Your task to perform on an android device: change alarm snooze length Image 0: 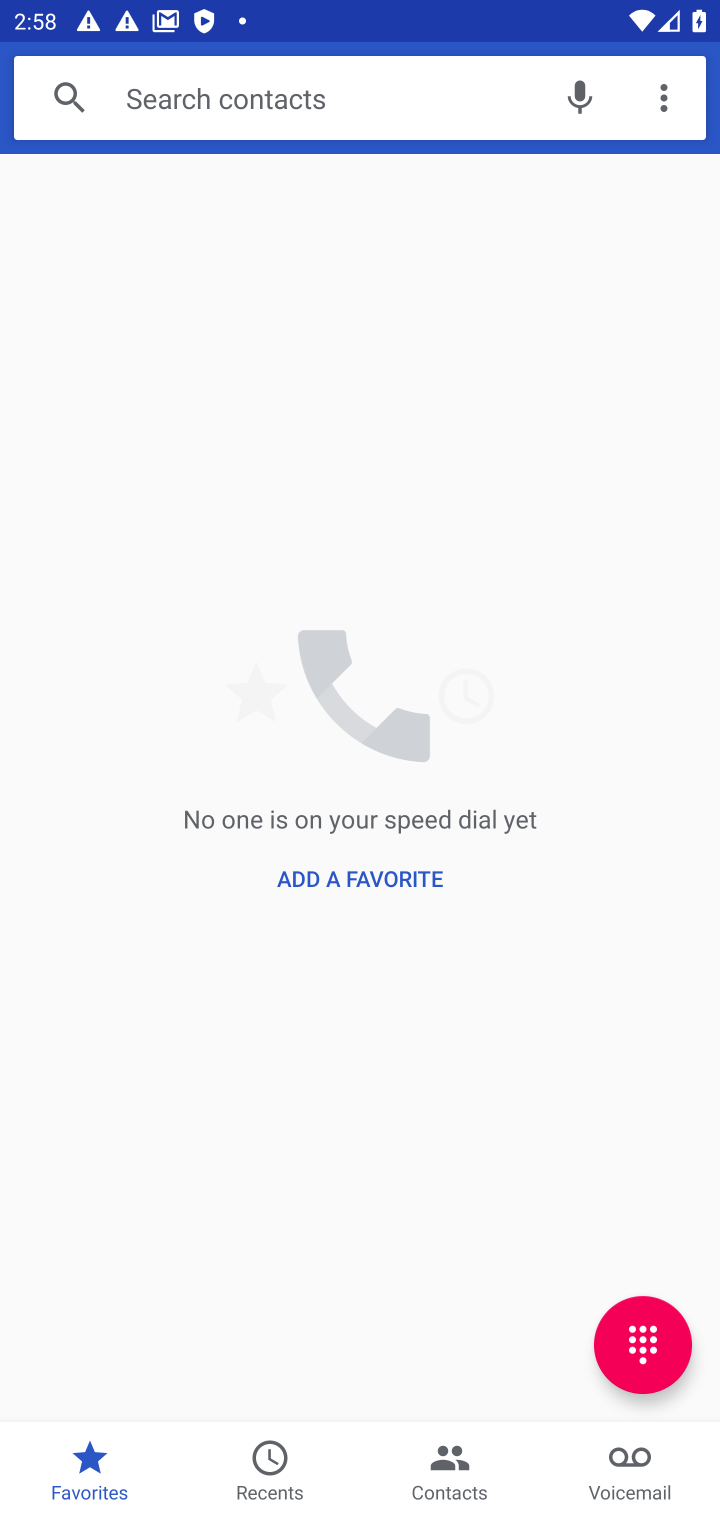
Step 0: press back button
Your task to perform on an android device: change alarm snooze length Image 1: 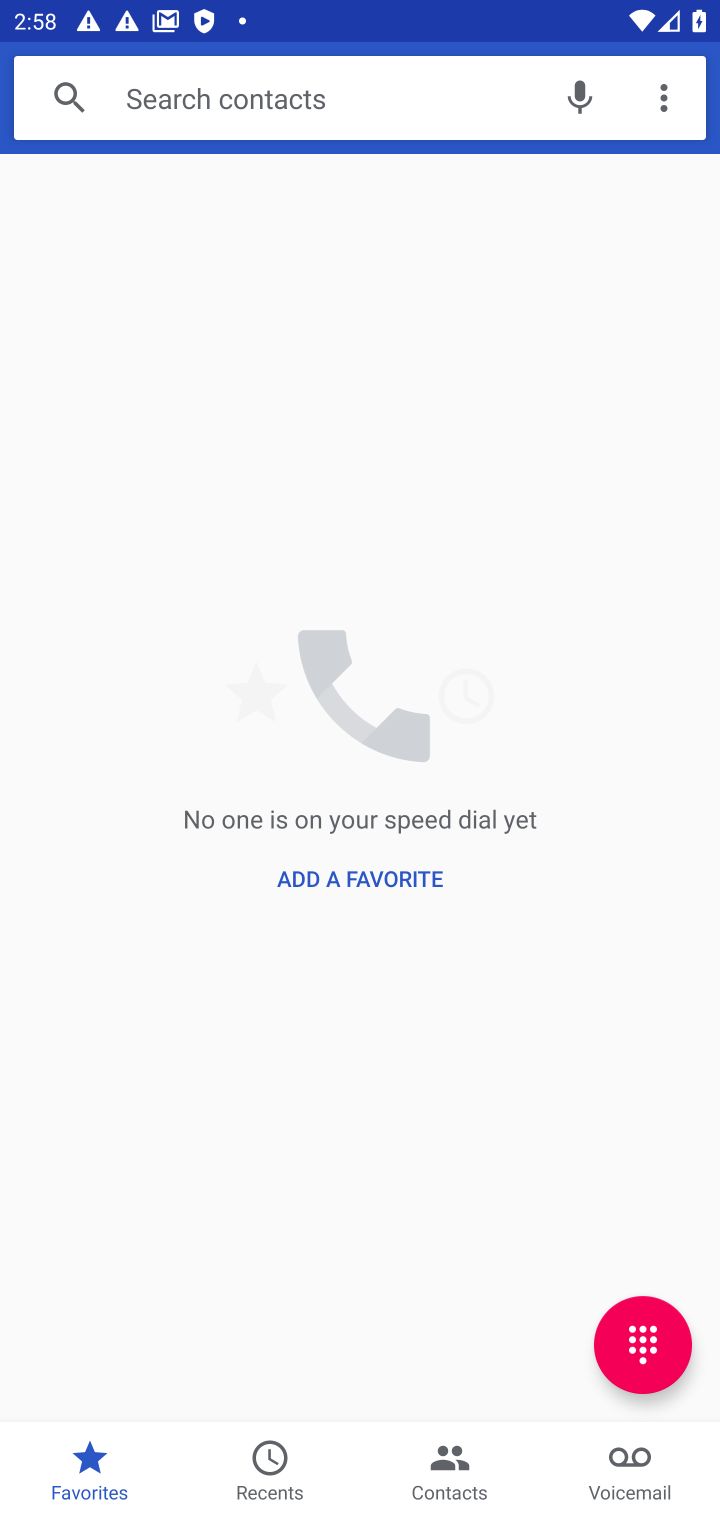
Step 1: press back button
Your task to perform on an android device: change alarm snooze length Image 2: 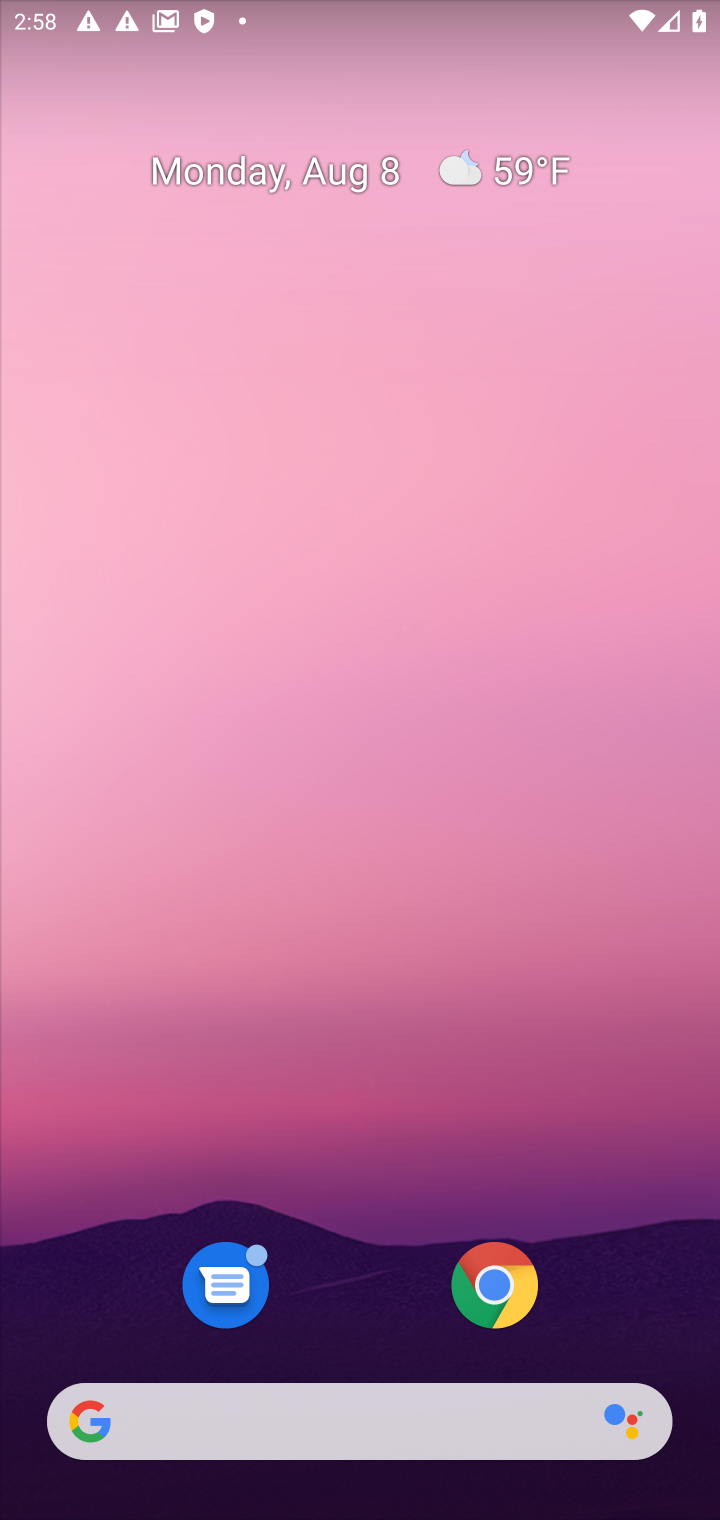
Step 2: click (503, 1274)
Your task to perform on an android device: change alarm snooze length Image 3: 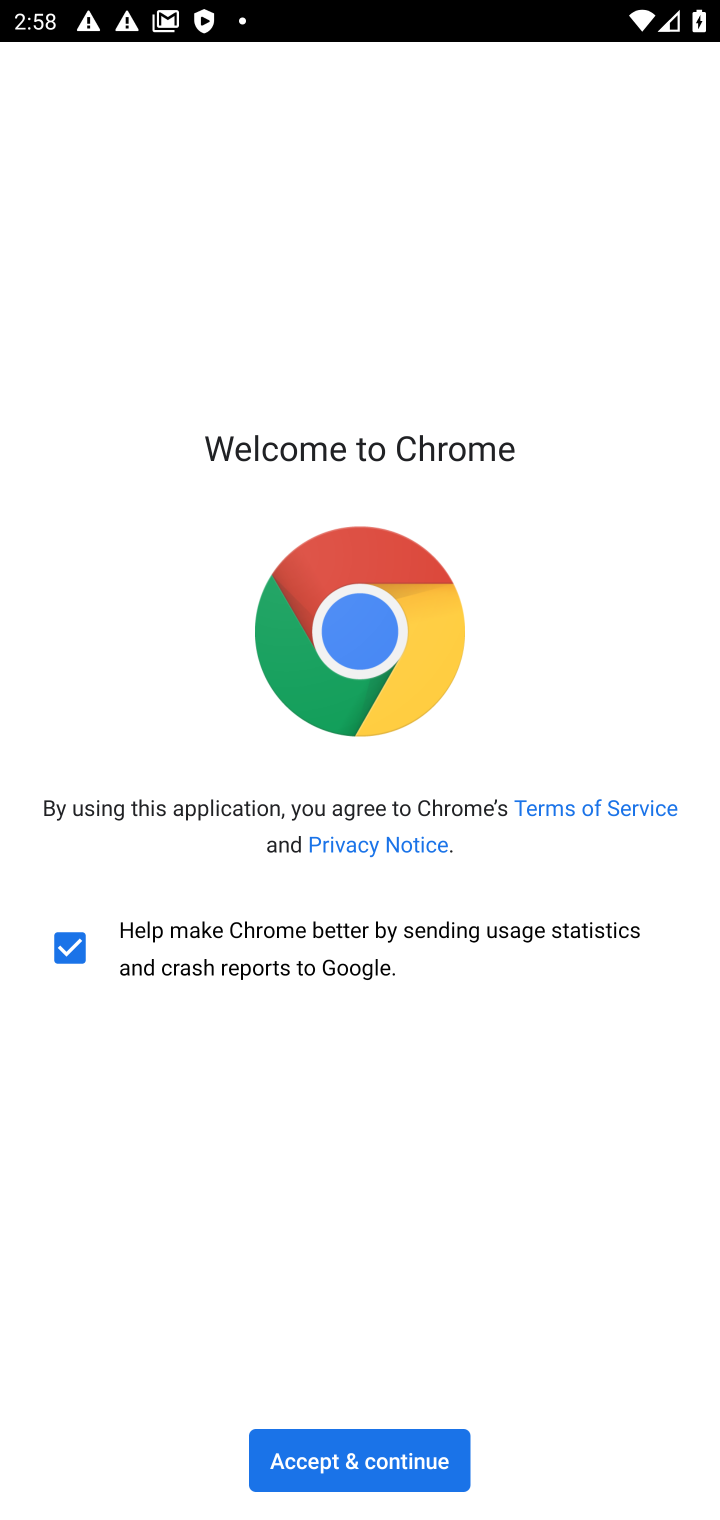
Step 3: press back button
Your task to perform on an android device: change alarm snooze length Image 4: 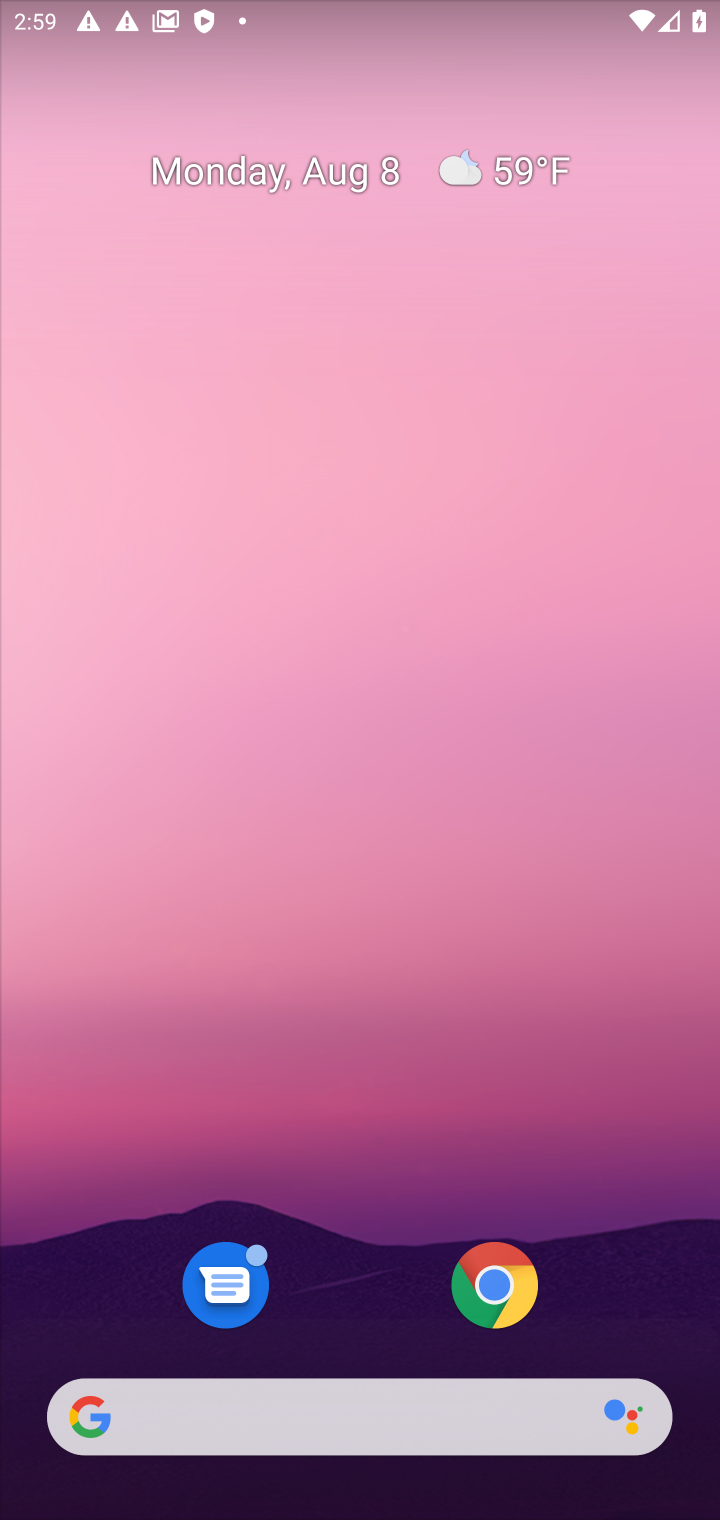
Step 4: drag from (338, 1257) to (463, 243)
Your task to perform on an android device: change alarm snooze length Image 5: 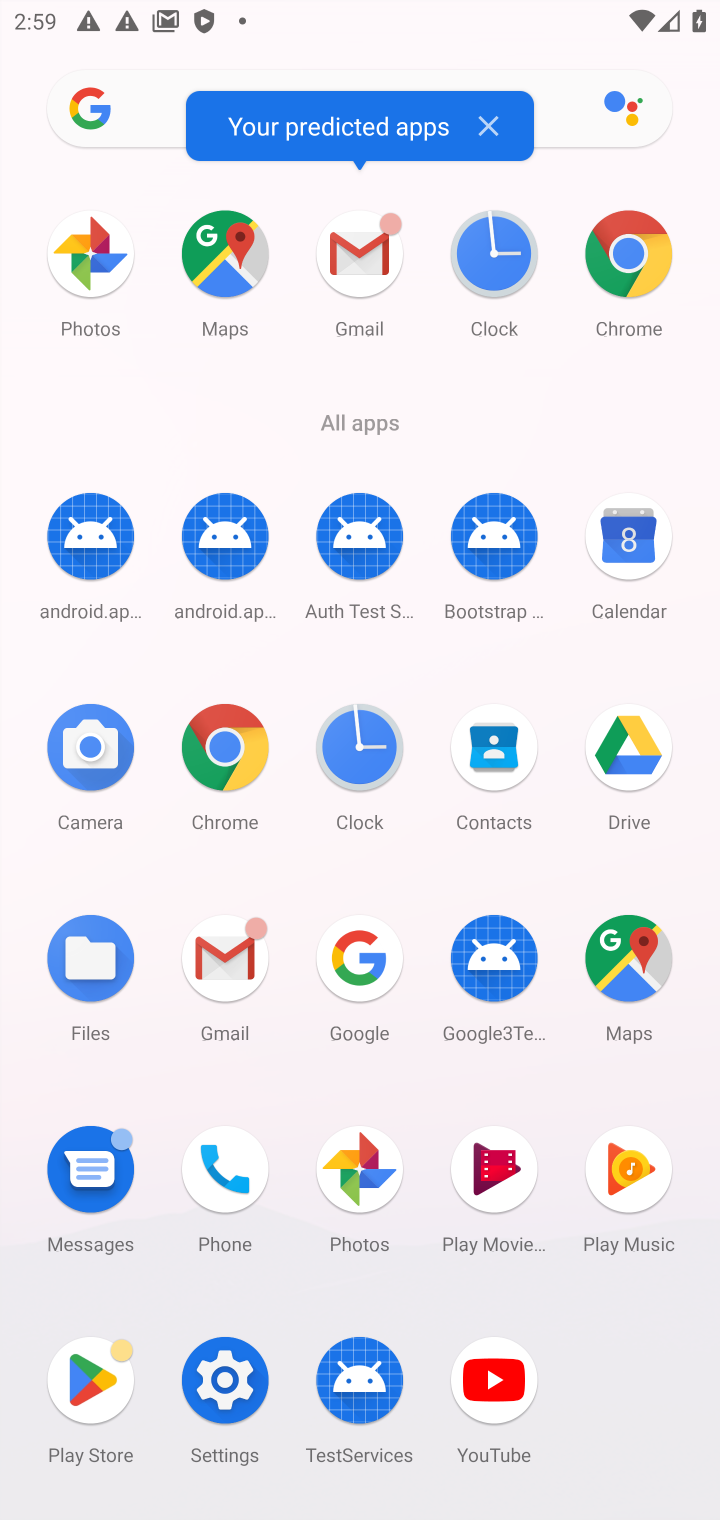
Step 5: click (524, 245)
Your task to perform on an android device: change alarm snooze length Image 6: 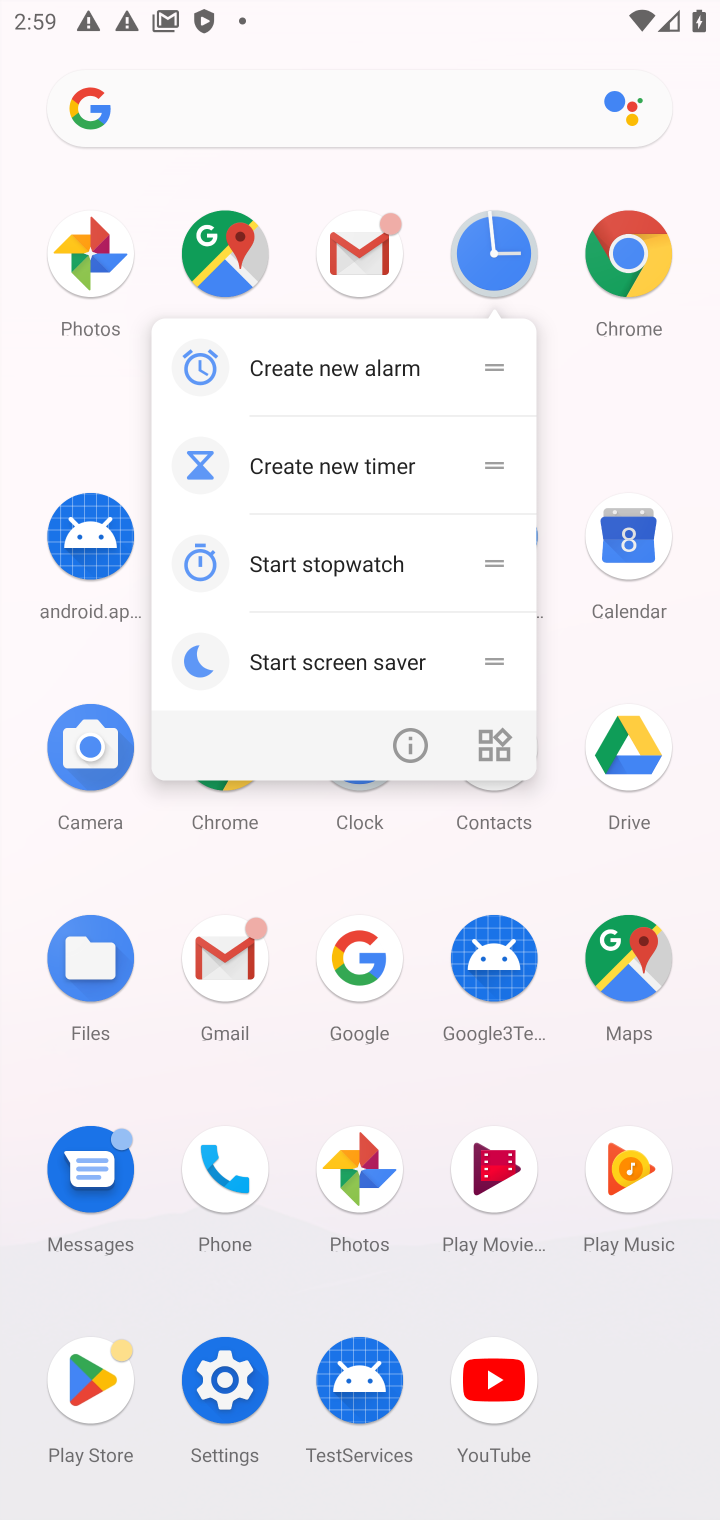
Step 6: click (483, 218)
Your task to perform on an android device: change alarm snooze length Image 7: 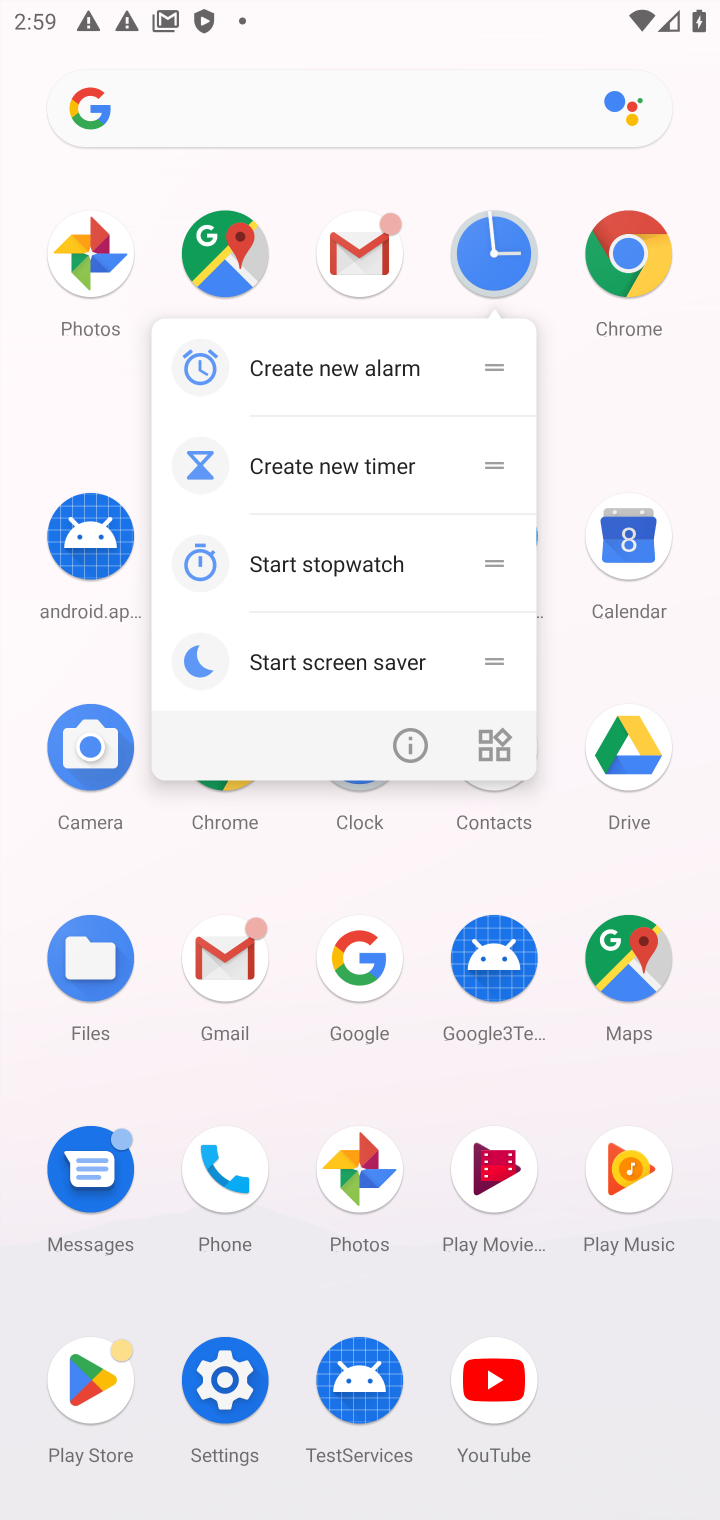
Step 7: click (492, 266)
Your task to perform on an android device: change alarm snooze length Image 8: 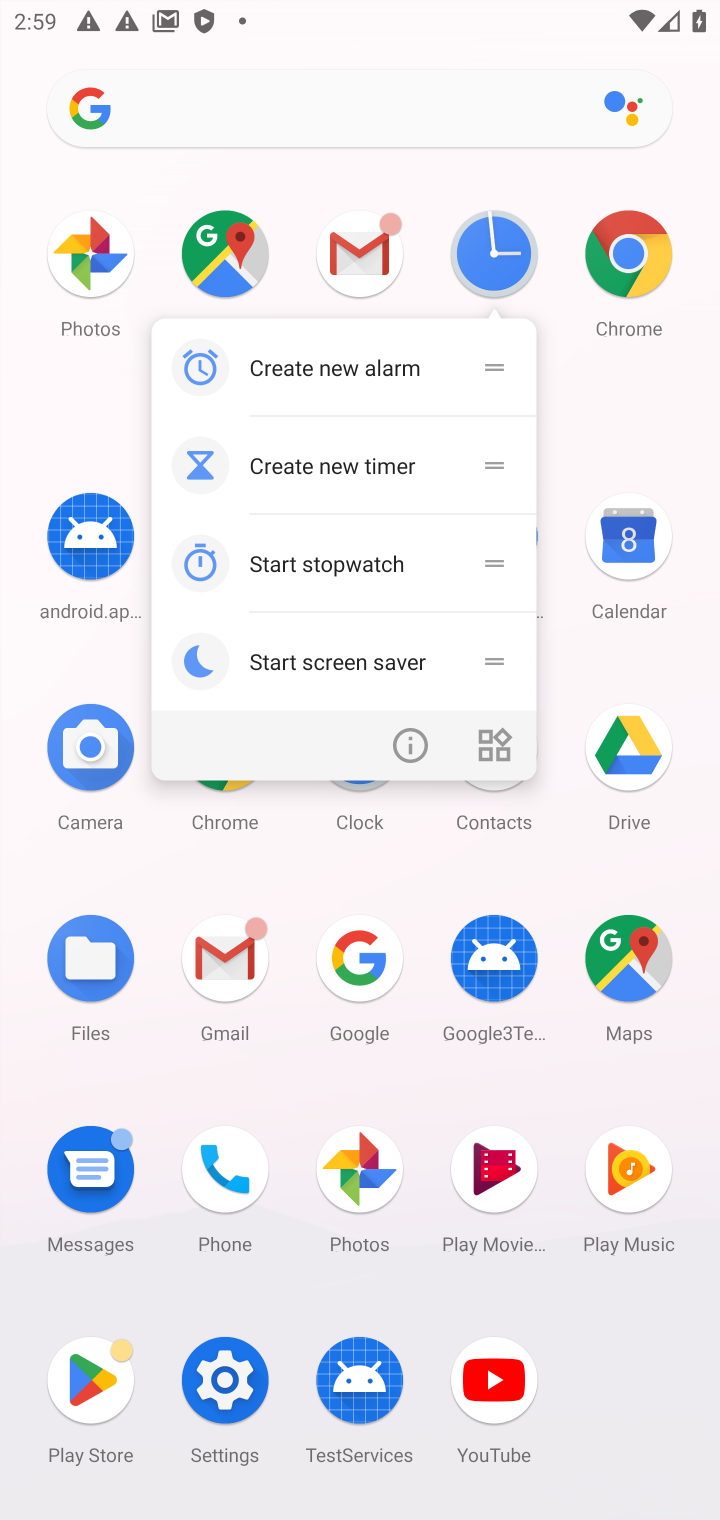
Step 8: click (497, 263)
Your task to perform on an android device: change alarm snooze length Image 9: 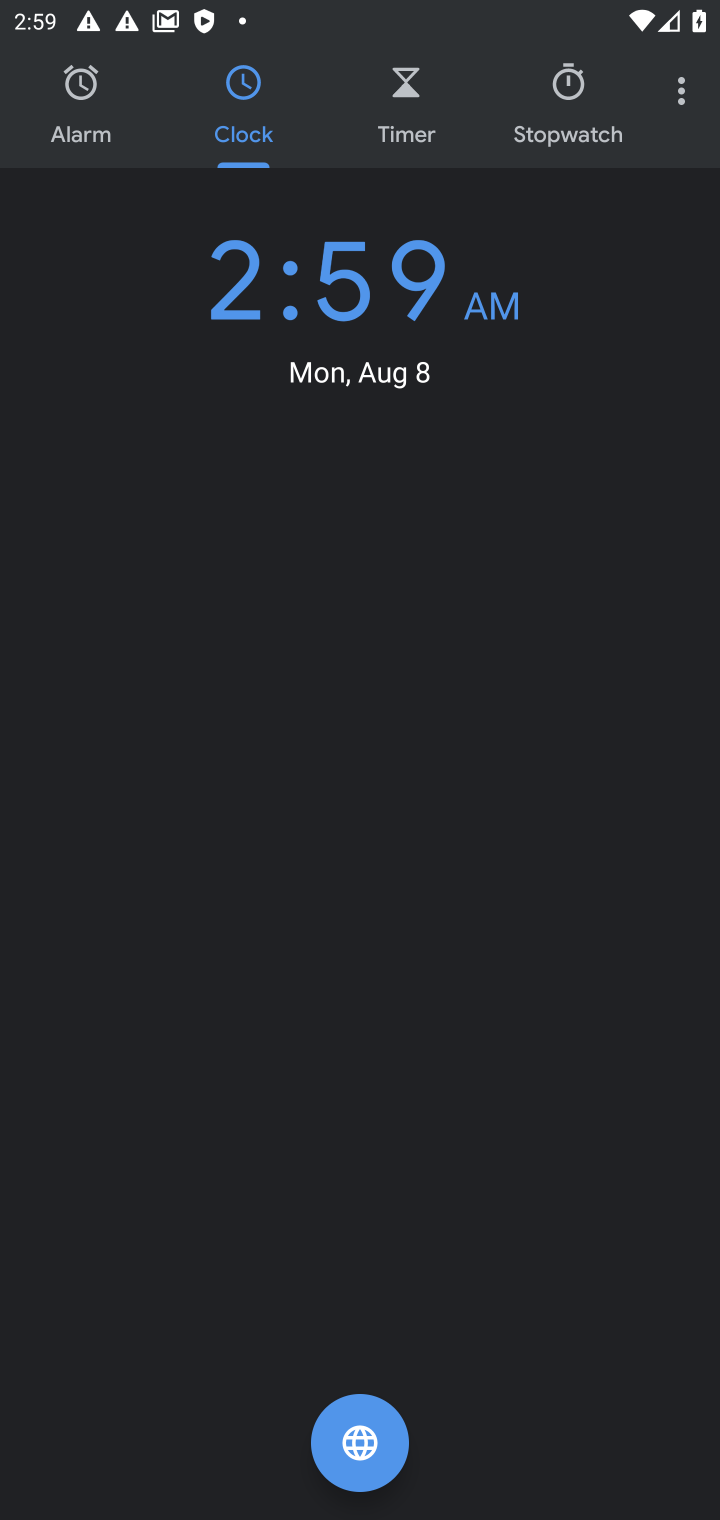
Step 9: click (699, 88)
Your task to perform on an android device: change alarm snooze length Image 10: 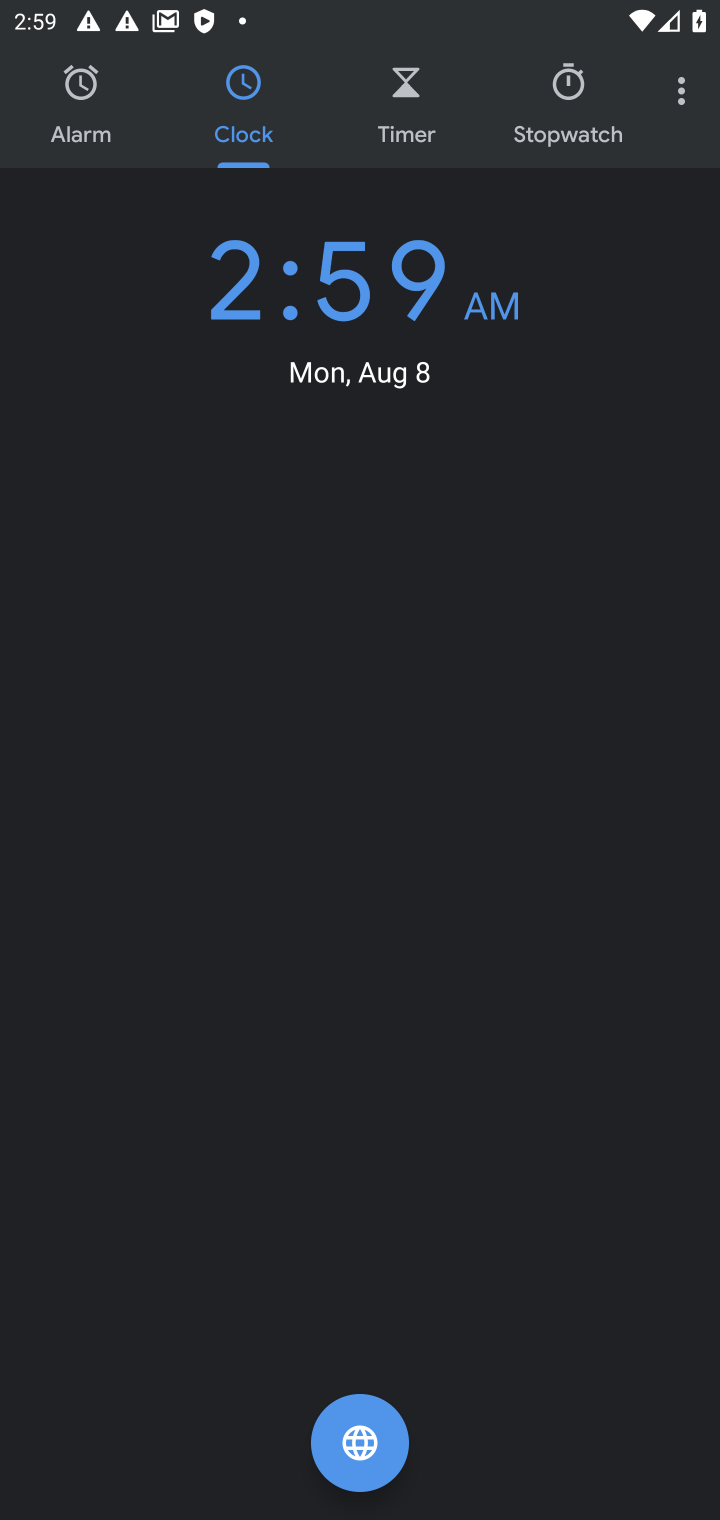
Step 10: click (677, 87)
Your task to perform on an android device: change alarm snooze length Image 11: 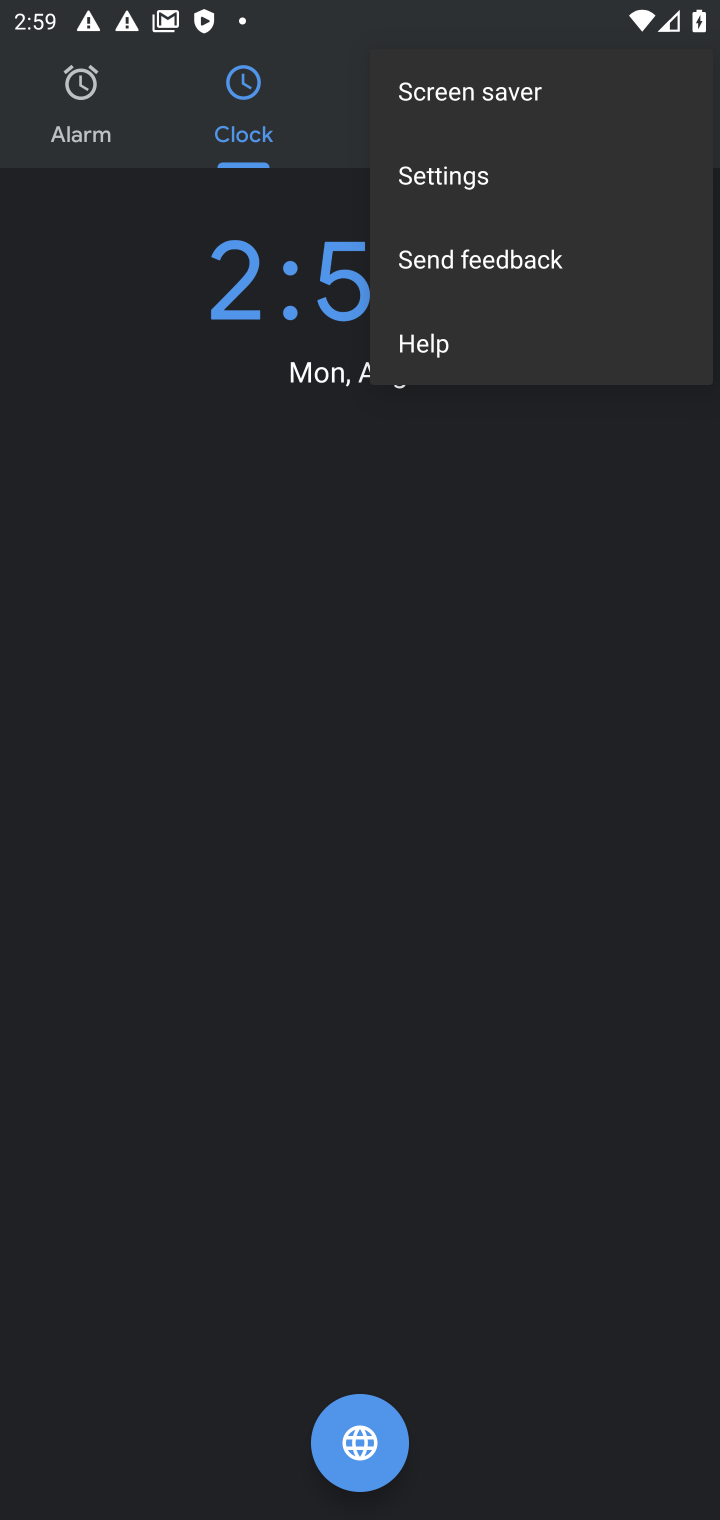
Step 11: click (498, 172)
Your task to perform on an android device: change alarm snooze length Image 12: 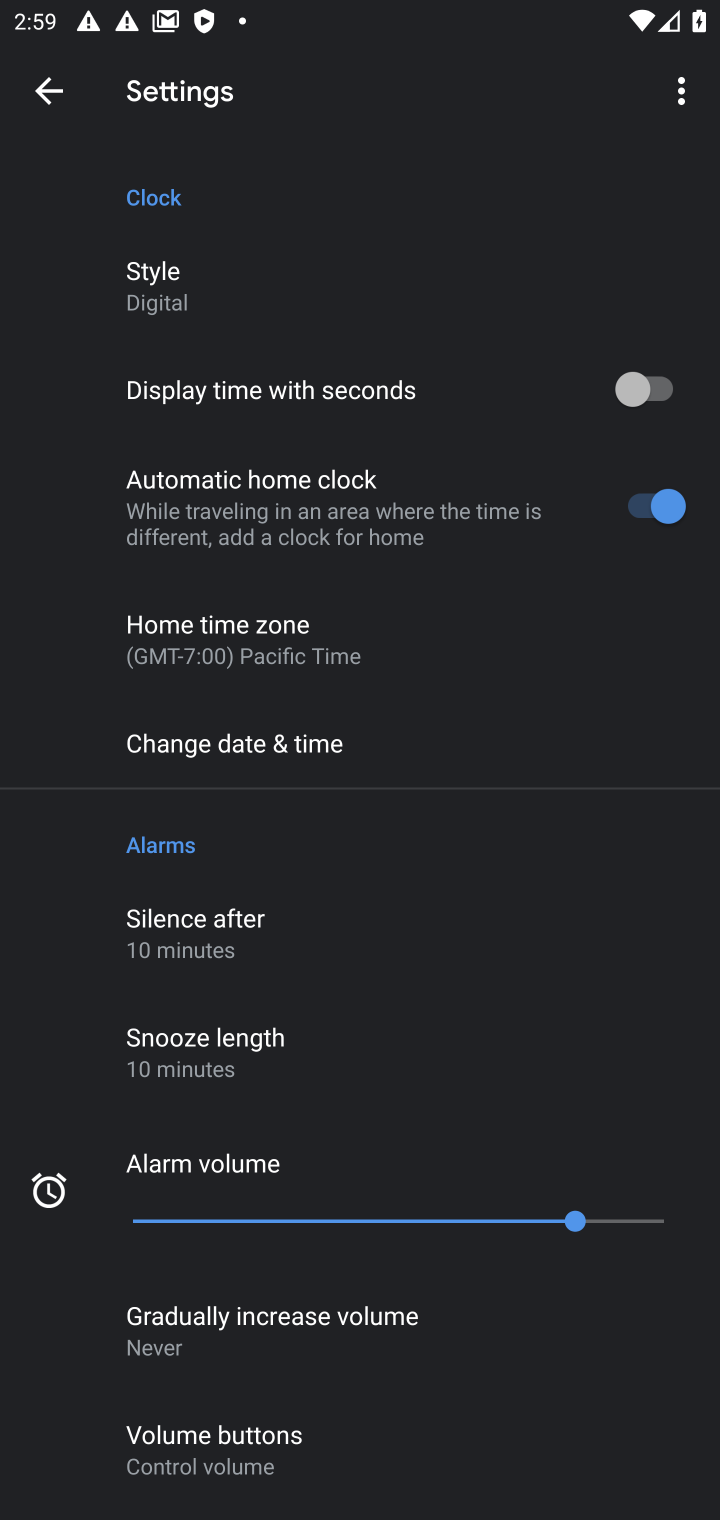
Step 12: click (284, 1053)
Your task to perform on an android device: change alarm snooze length Image 13: 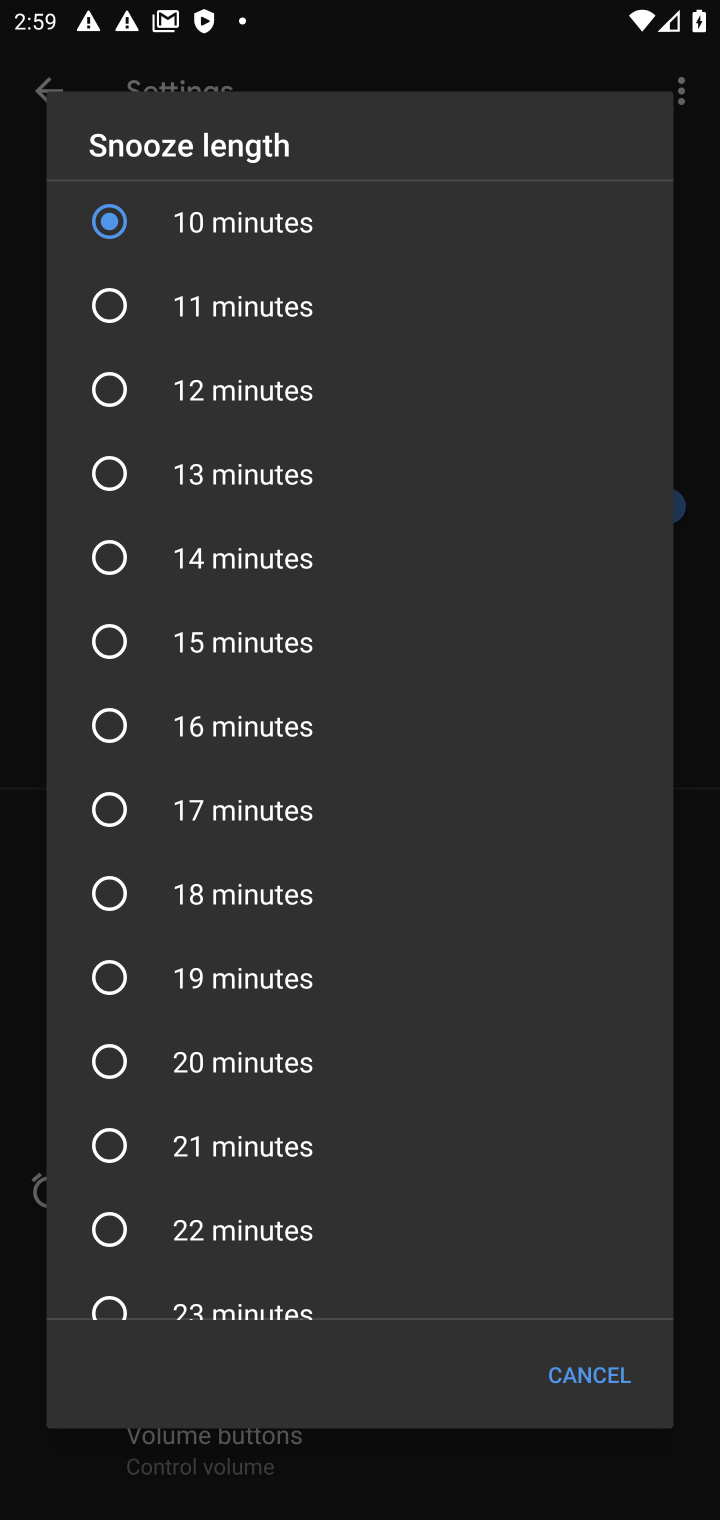
Step 13: click (136, 566)
Your task to perform on an android device: change alarm snooze length Image 14: 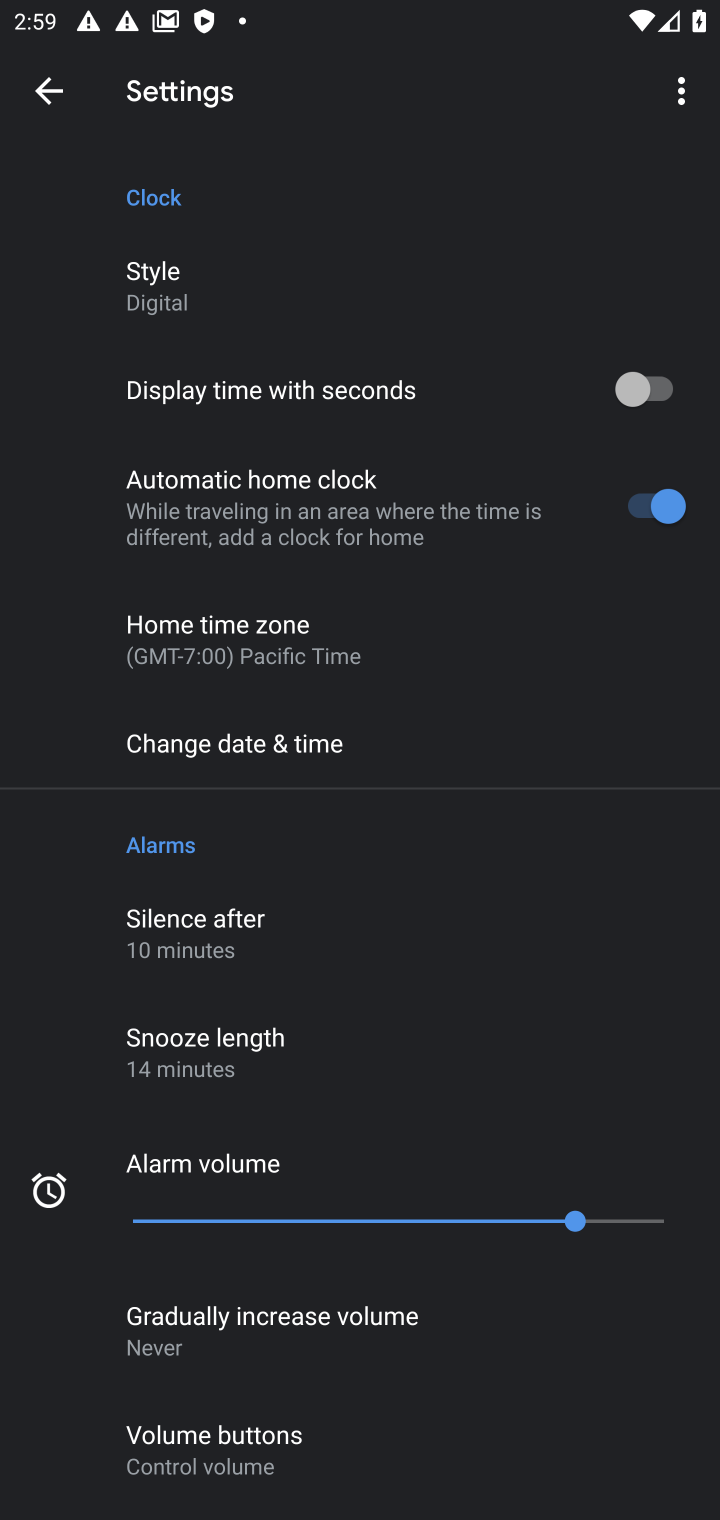
Step 14: task complete